Your task to perform on an android device: show emergency info Image 0: 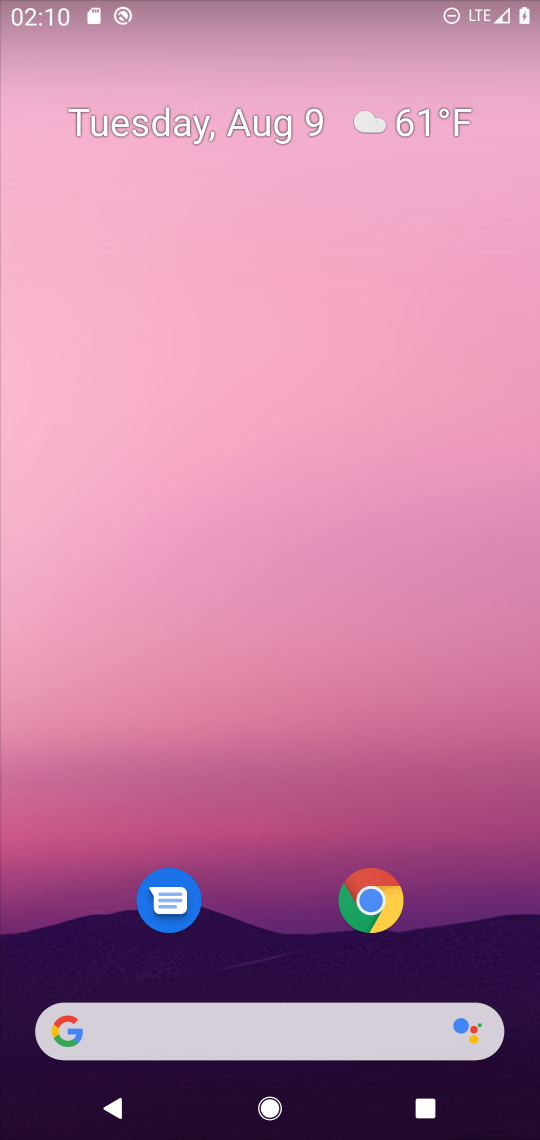
Step 0: press home button
Your task to perform on an android device: show emergency info Image 1: 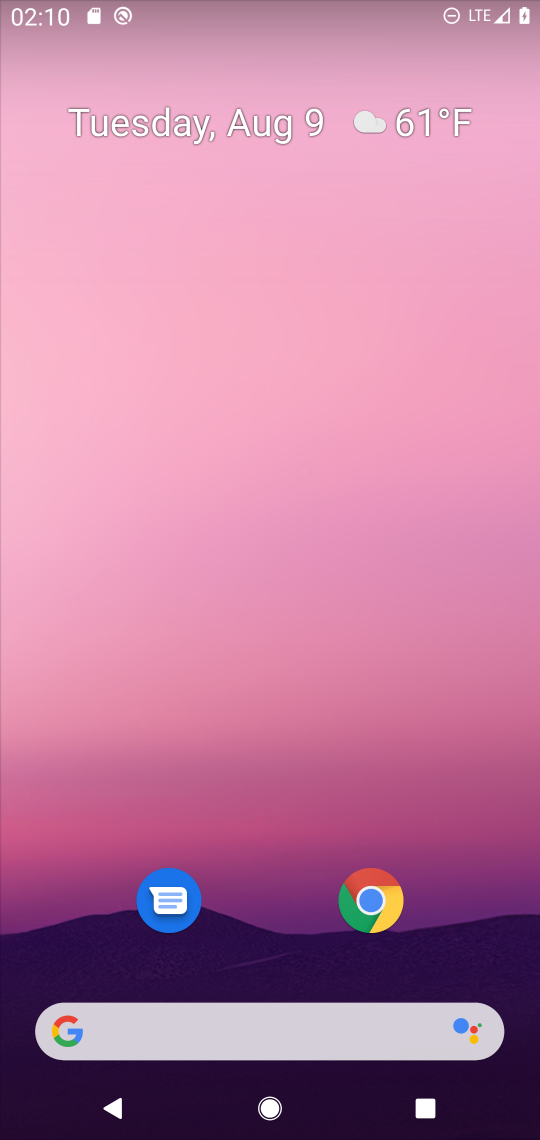
Step 1: drag from (268, 967) to (300, 214)
Your task to perform on an android device: show emergency info Image 2: 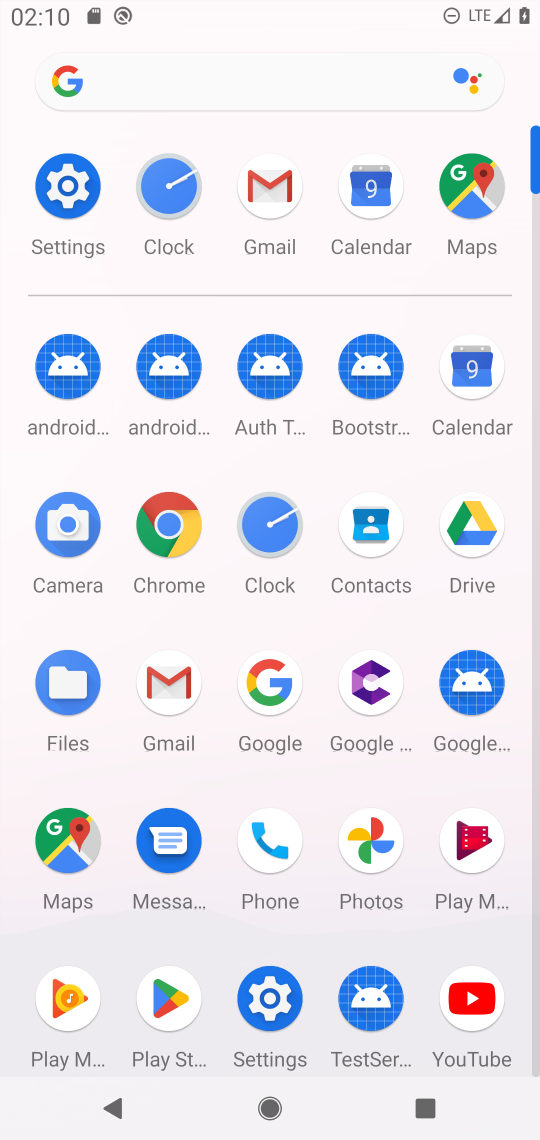
Step 2: click (65, 190)
Your task to perform on an android device: show emergency info Image 3: 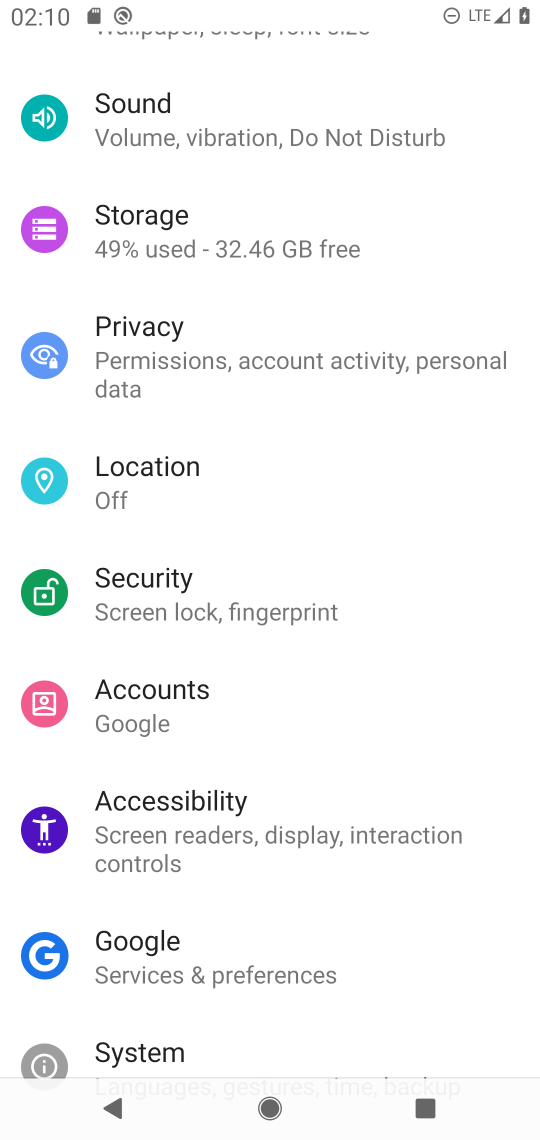
Step 3: drag from (450, 710) to (443, 375)
Your task to perform on an android device: show emergency info Image 4: 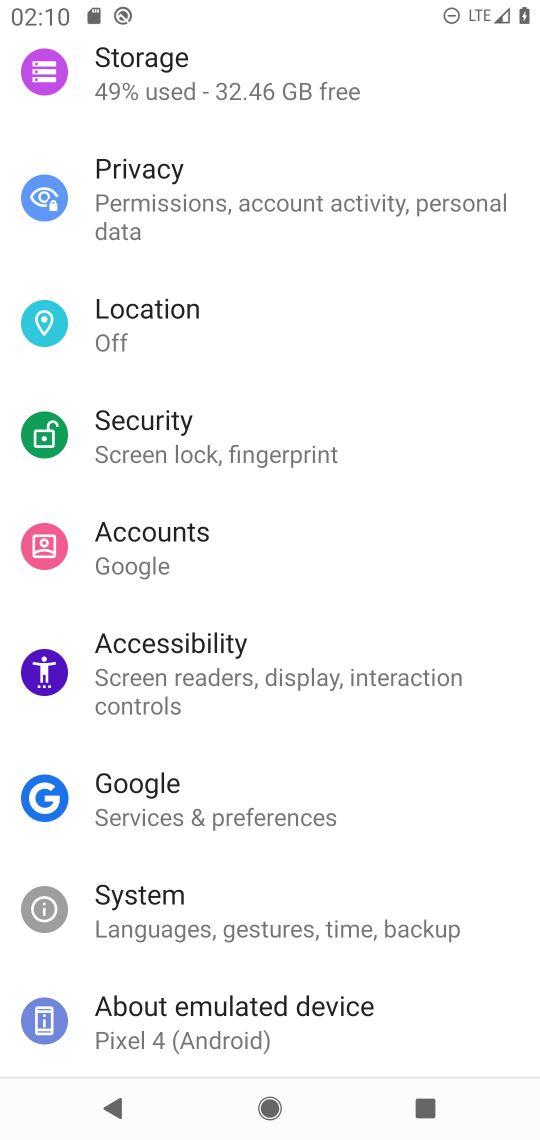
Step 4: drag from (424, 784) to (414, 487)
Your task to perform on an android device: show emergency info Image 5: 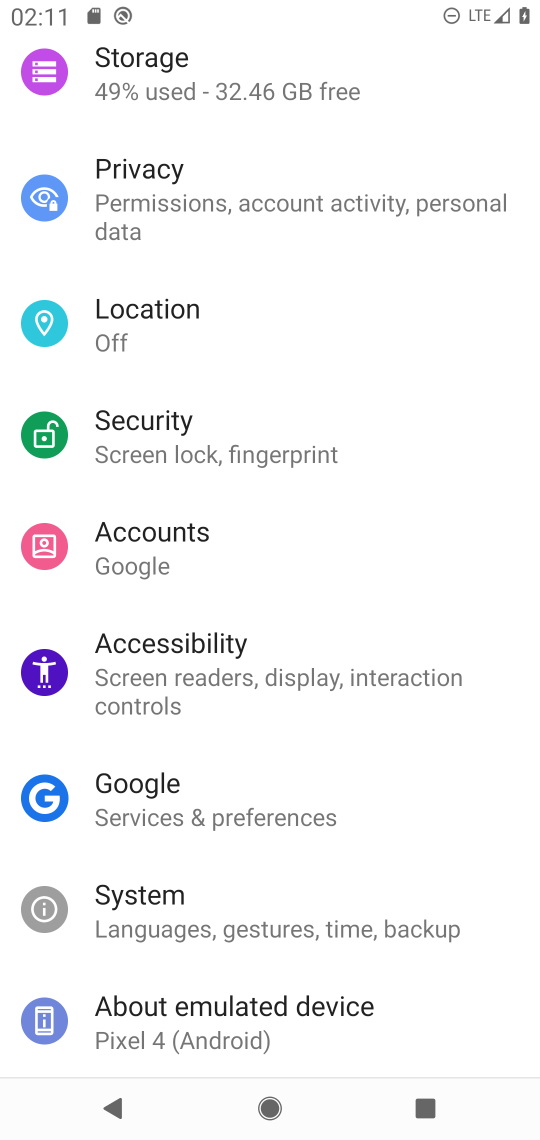
Step 5: drag from (433, 337) to (433, 433)
Your task to perform on an android device: show emergency info Image 6: 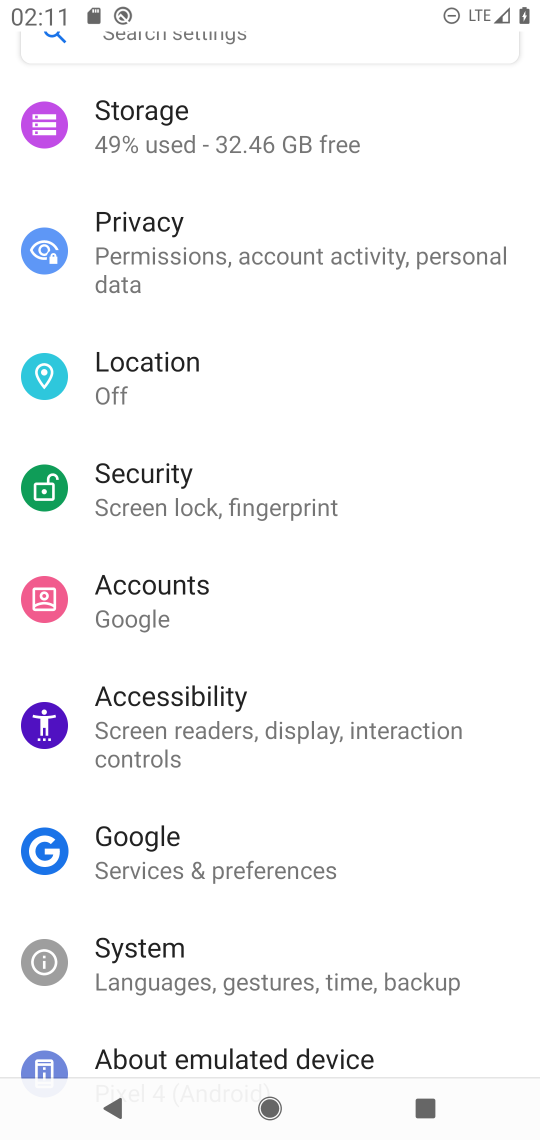
Step 6: drag from (390, 843) to (405, 554)
Your task to perform on an android device: show emergency info Image 7: 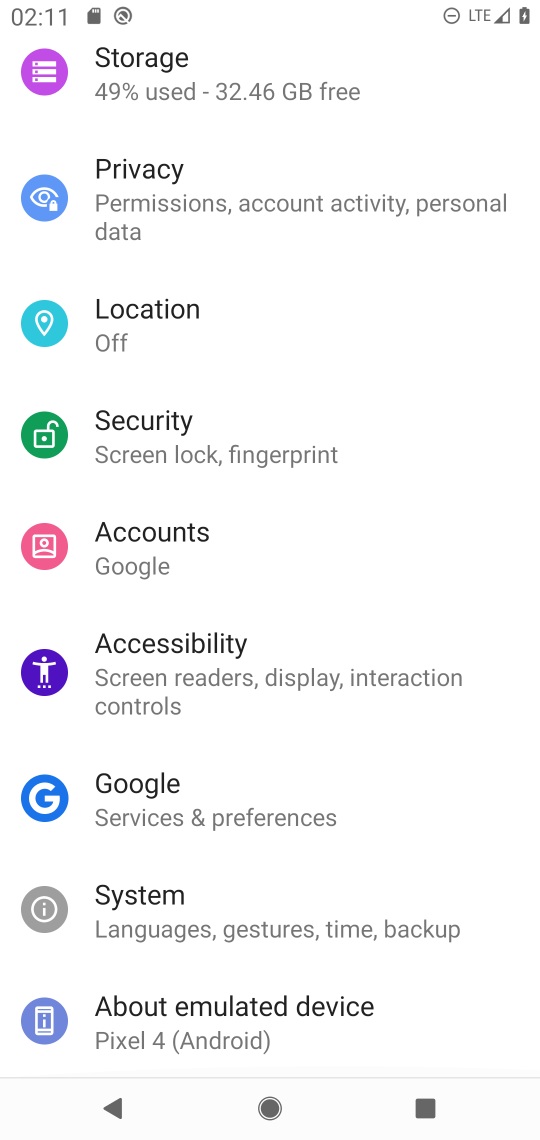
Step 7: click (382, 1013)
Your task to perform on an android device: show emergency info Image 8: 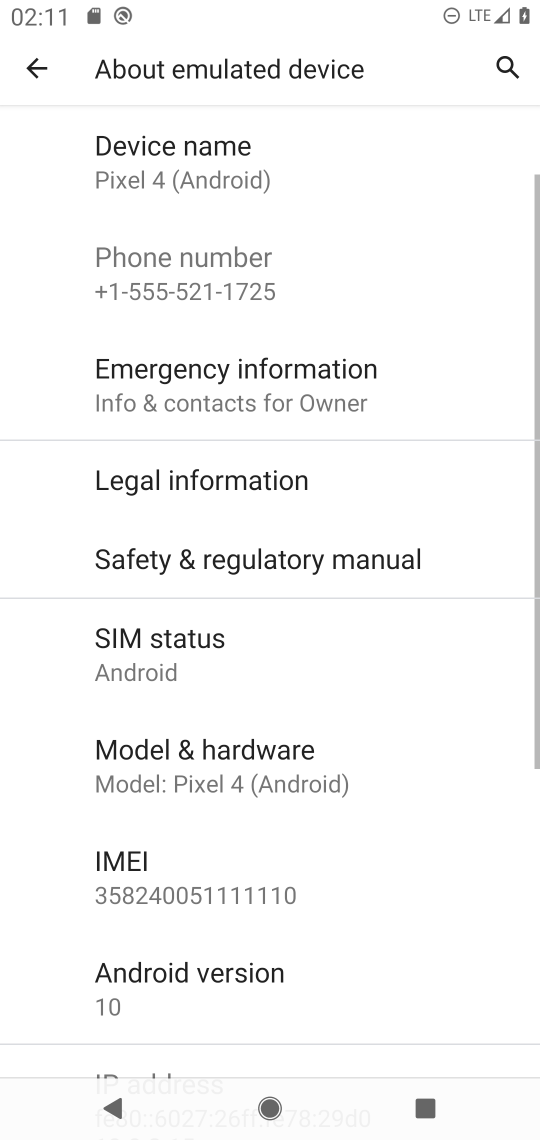
Step 8: click (362, 399)
Your task to perform on an android device: show emergency info Image 9: 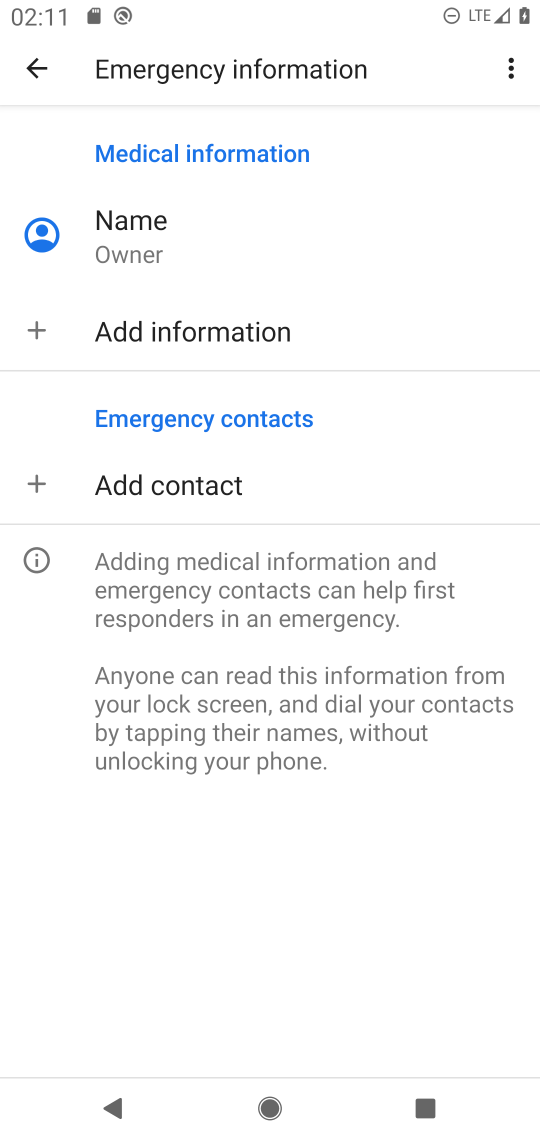
Step 9: task complete